Your task to perform on an android device: read, delete, or share a saved page in the chrome app Image 0: 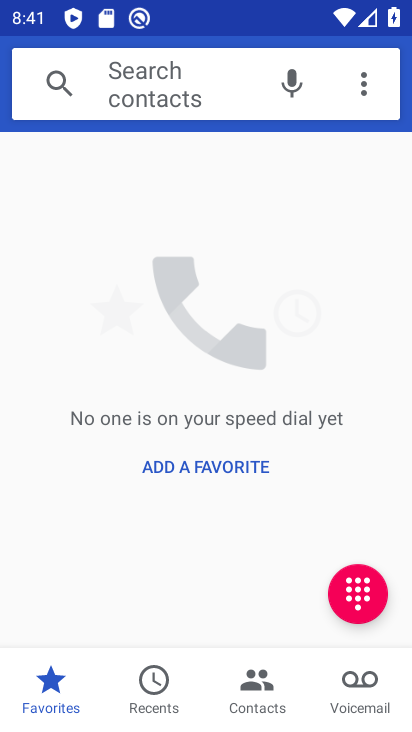
Step 0: press home button
Your task to perform on an android device: read, delete, or share a saved page in the chrome app Image 1: 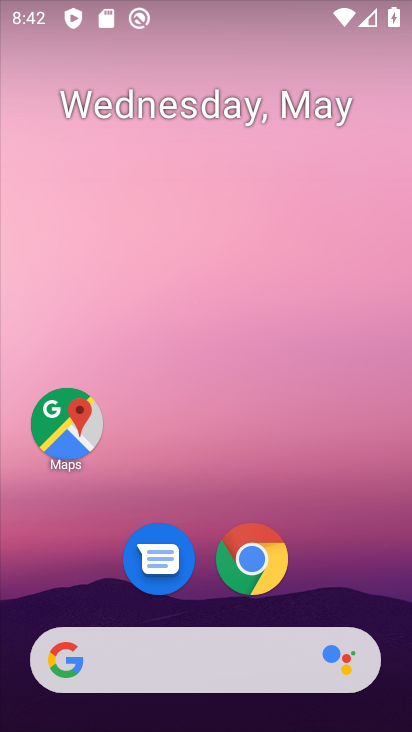
Step 1: click (253, 572)
Your task to perform on an android device: read, delete, or share a saved page in the chrome app Image 2: 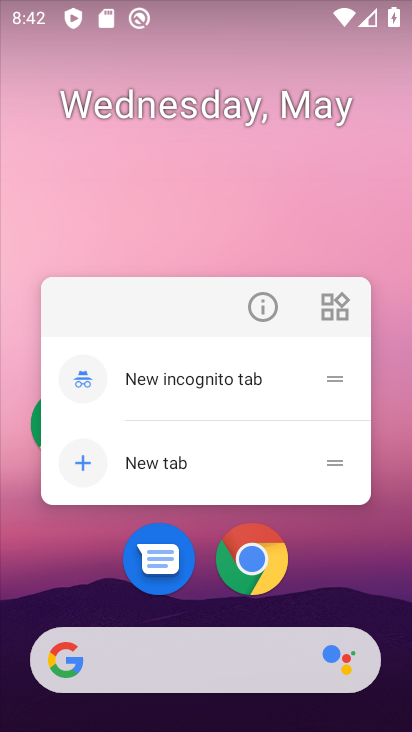
Step 2: click (258, 560)
Your task to perform on an android device: read, delete, or share a saved page in the chrome app Image 3: 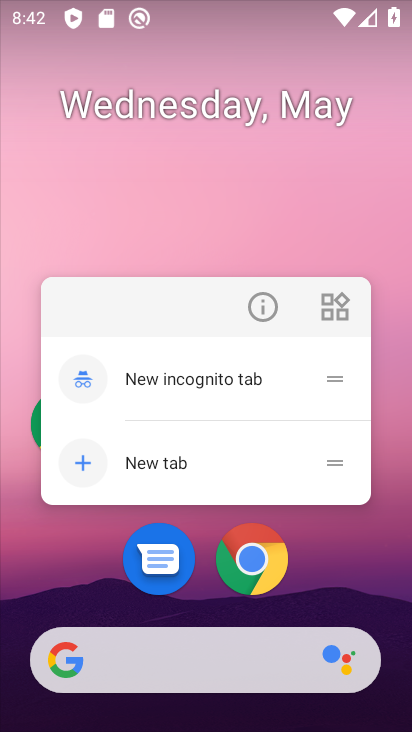
Step 3: click (257, 559)
Your task to perform on an android device: read, delete, or share a saved page in the chrome app Image 4: 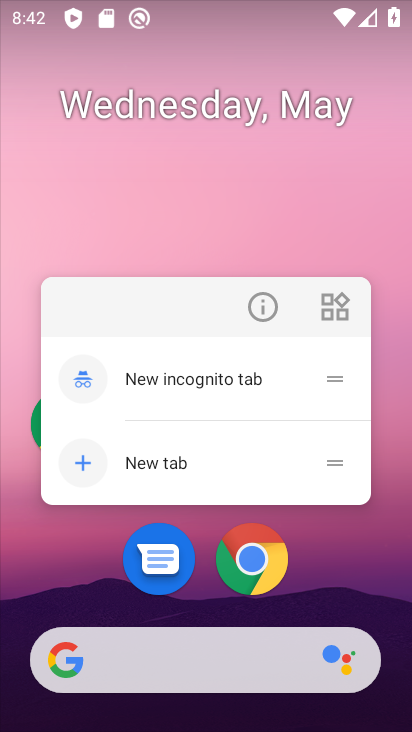
Step 4: click (245, 545)
Your task to perform on an android device: read, delete, or share a saved page in the chrome app Image 5: 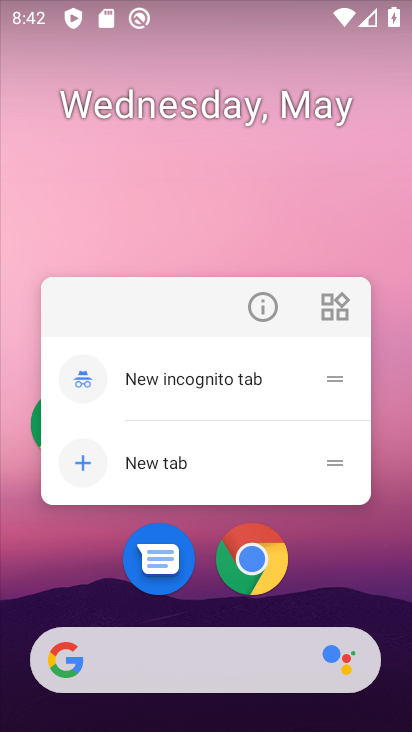
Step 5: click (240, 549)
Your task to perform on an android device: read, delete, or share a saved page in the chrome app Image 6: 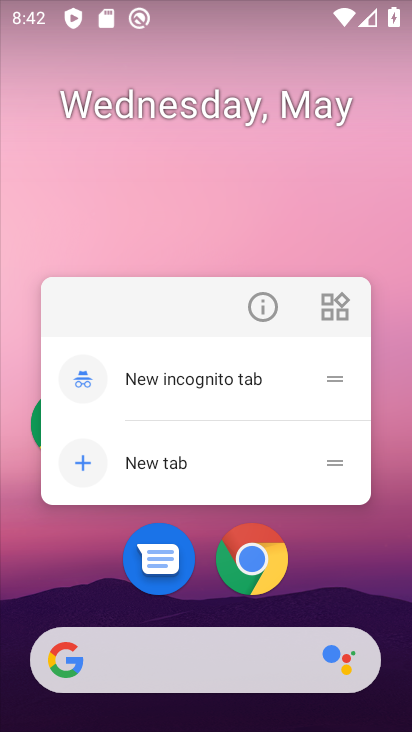
Step 6: click (243, 555)
Your task to perform on an android device: read, delete, or share a saved page in the chrome app Image 7: 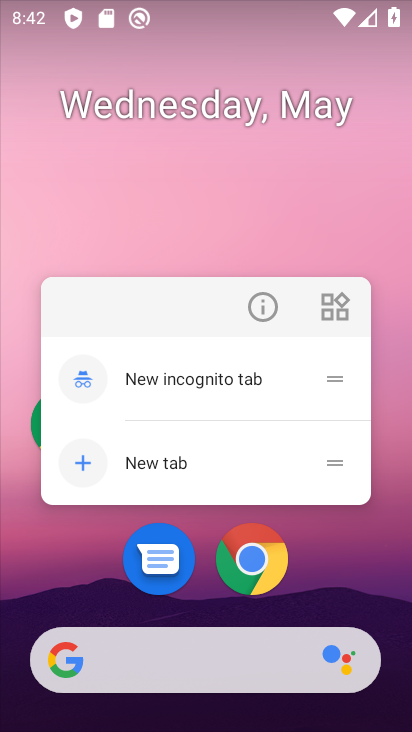
Step 7: click (246, 567)
Your task to perform on an android device: read, delete, or share a saved page in the chrome app Image 8: 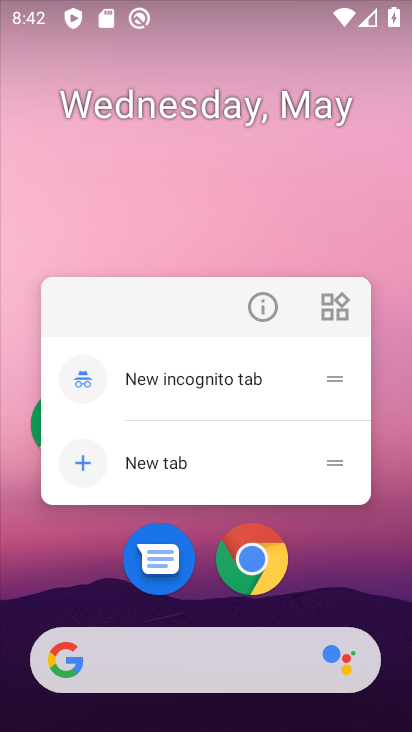
Step 8: click (248, 569)
Your task to perform on an android device: read, delete, or share a saved page in the chrome app Image 9: 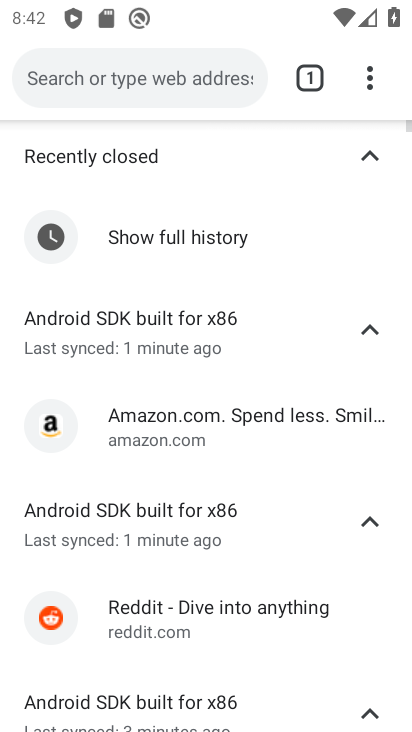
Step 9: drag from (376, 81) to (225, 515)
Your task to perform on an android device: read, delete, or share a saved page in the chrome app Image 10: 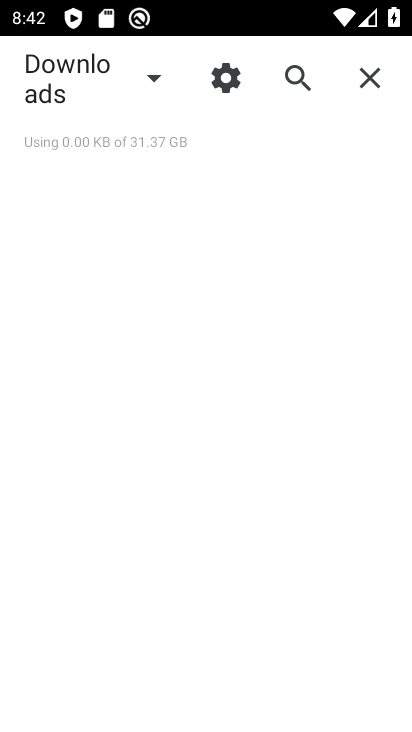
Step 10: click (97, 67)
Your task to perform on an android device: read, delete, or share a saved page in the chrome app Image 11: 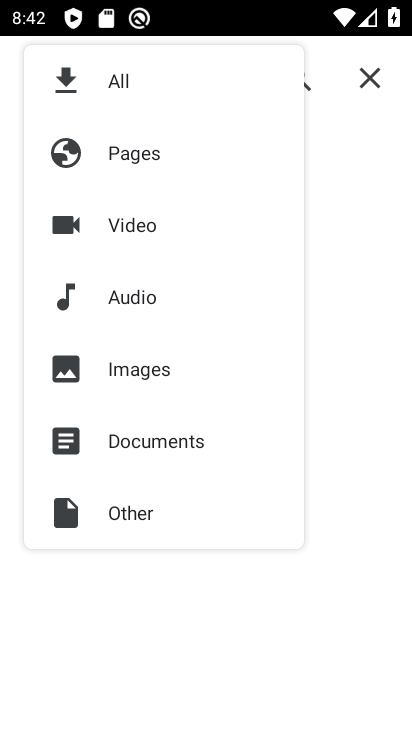
Step 11: click (169, 160)
Your task to perform on an android device: read, delete, or share a saved page in the chrome app Image 12: 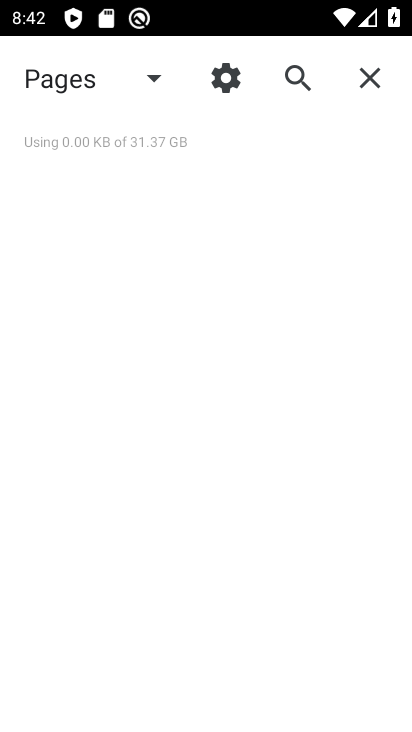
Step 12: task complete